Your task to perform on an android device: turn on the 12-hour format for clock Image 0: 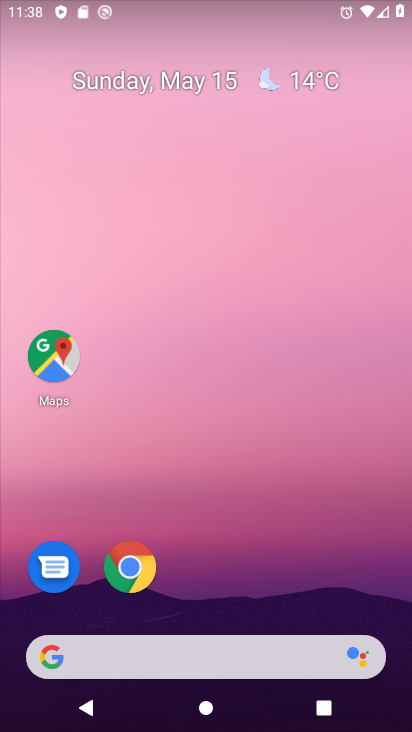
Step 0: drag from (254, 592) to (229, 53)
Your task to perform on an android device: turn on the 12-hour format for clock Image 1: 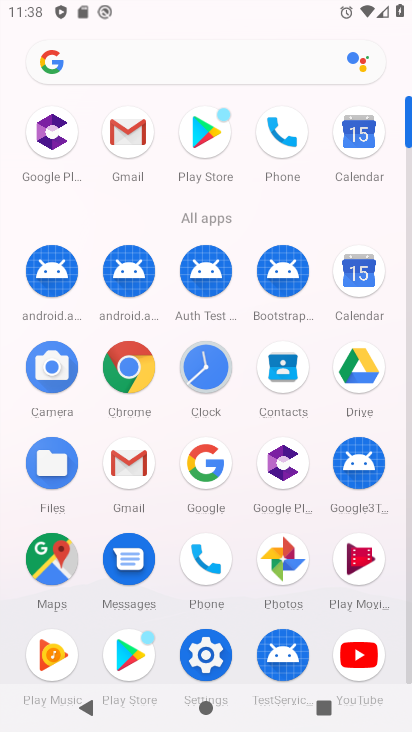
Step 1: click (200, 360)
Your task to perform on an android device: turn on the 12-hour format for clock Image 2: 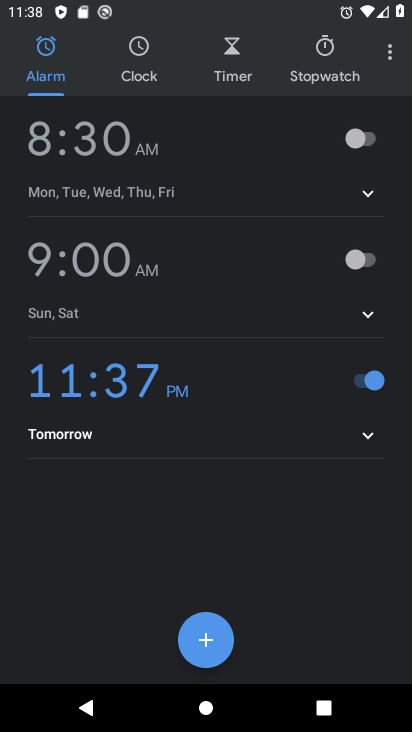
Step 2: click (390, 61)
Your task to perform on an android device: turn on the 12-hour format for clock Image 3: 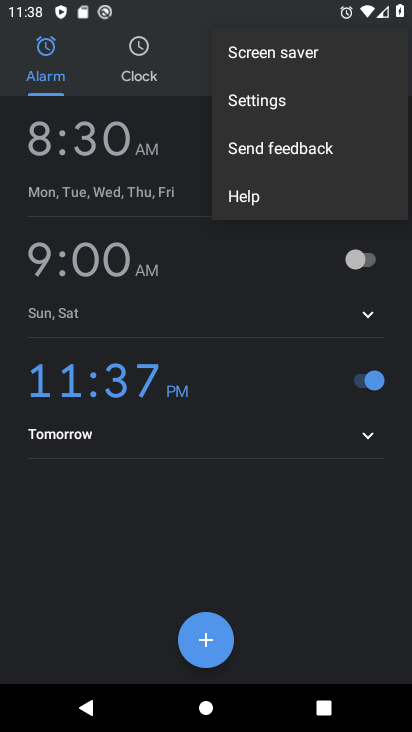
Step 3: click (360, 103)
Your task to perform on an android device: turn on the 12-hour format for clock Image 4: 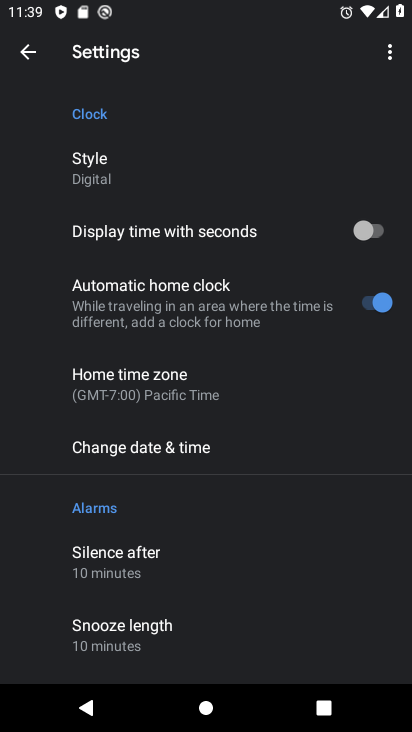
Step 4: click (133, 444)
Your task to perform on an android device: turn on the 12-hour format for clock Image 5: 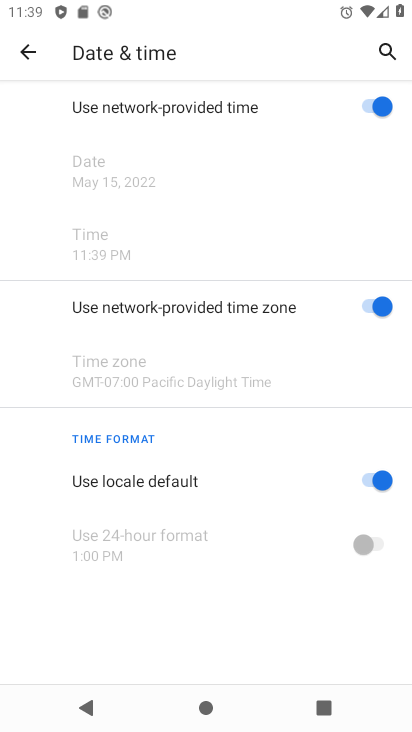
Step 5: task complete